Your task to perform on an android device: Check the weather Image 0: 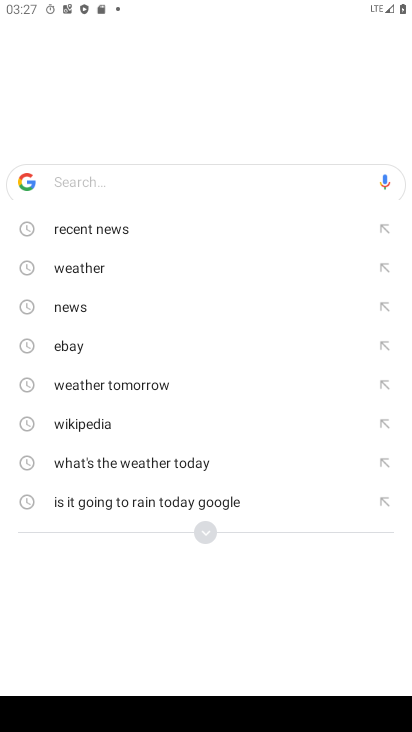
Step 0: press home button
Your task to perform on an android device: Check the weather Image 1: 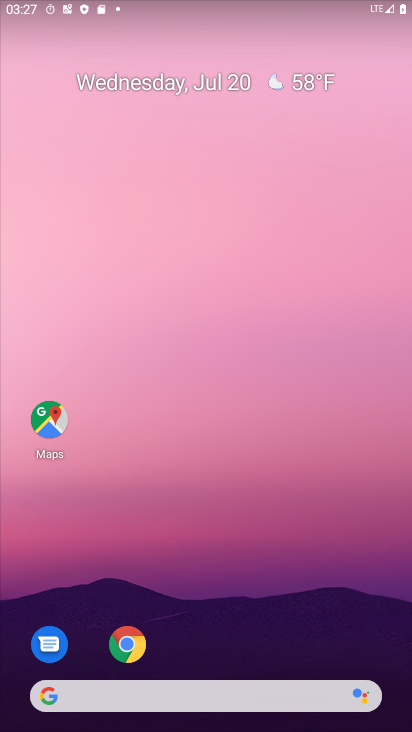
Step 1: drag from (18, 701) to (251, 137)
Your task to perform on an android device: Check the weather Image 2: 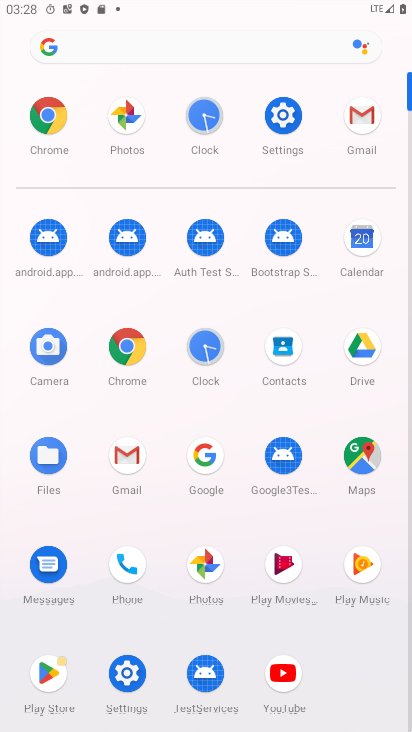
Step 2: click (69, 44)
Your task to perform on an android device: Check the weather Image 3: 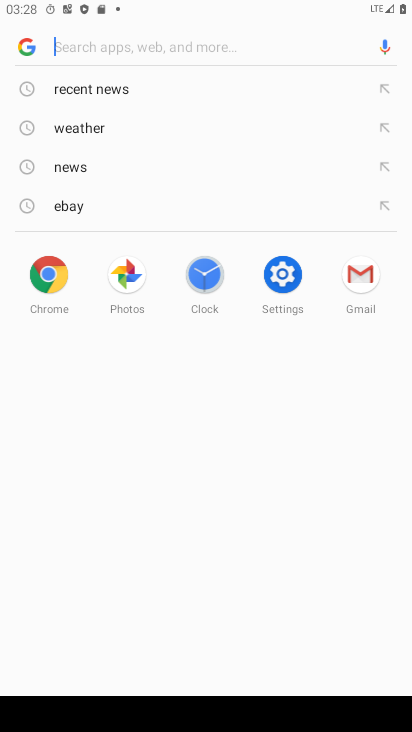
Step 3: click (76, 127)
Your task to perform on an android device: Check the weather Image 4: 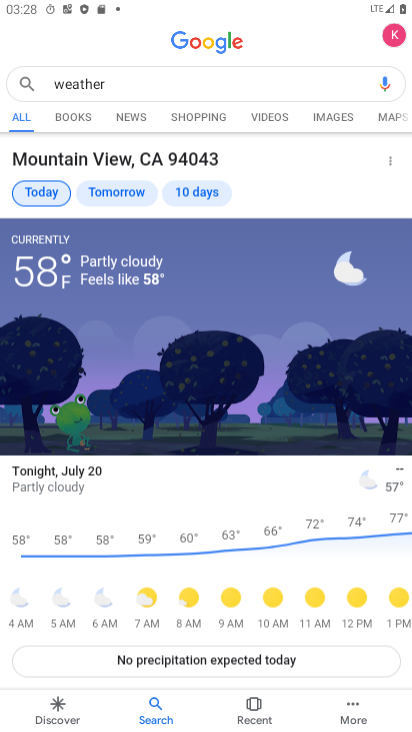
Step 4: task complete